Your task to perform on an android device: Open maps Image 0: 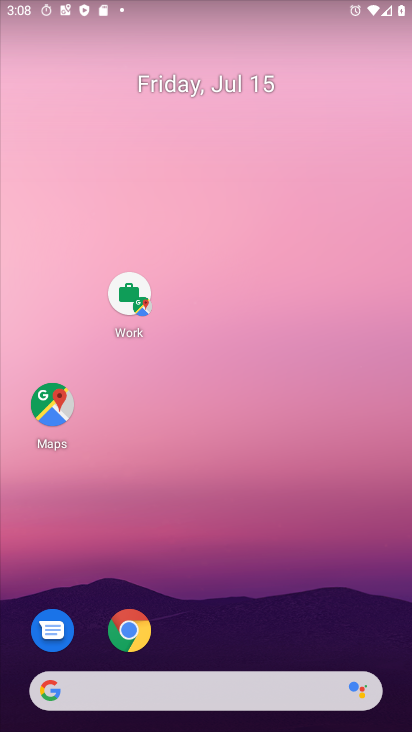
Step 0: click (69, 408)
Your task to perform on an android device: Open maps Image 1: 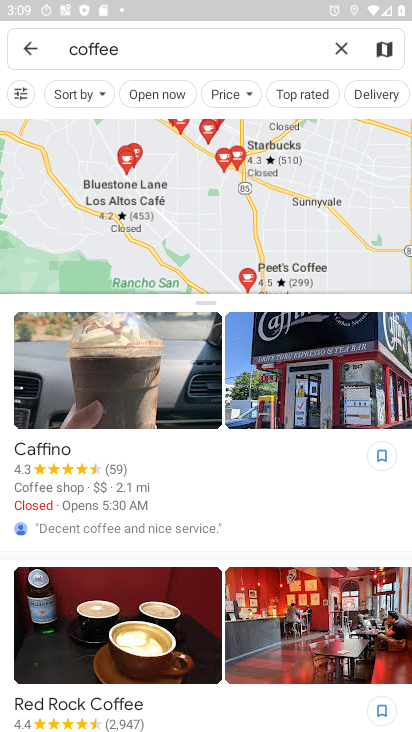
Step 1: task complete